Your task to perform on an android device: Go to sound settings Image 0: 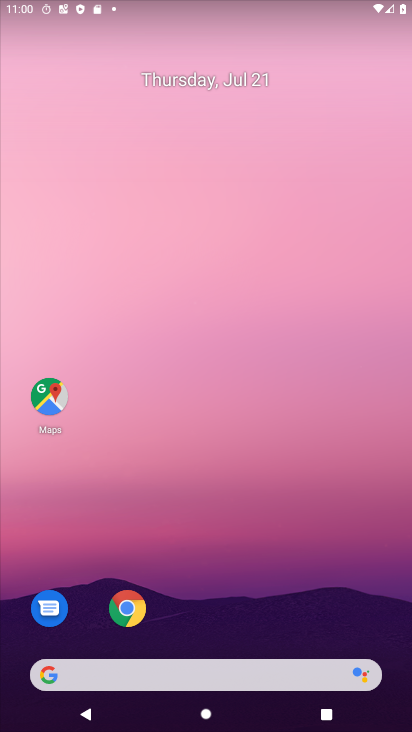
Step 0: drag from (184, 602) to (186, 102)
Your task to perform on an android device: Go to sound settings Image 1: 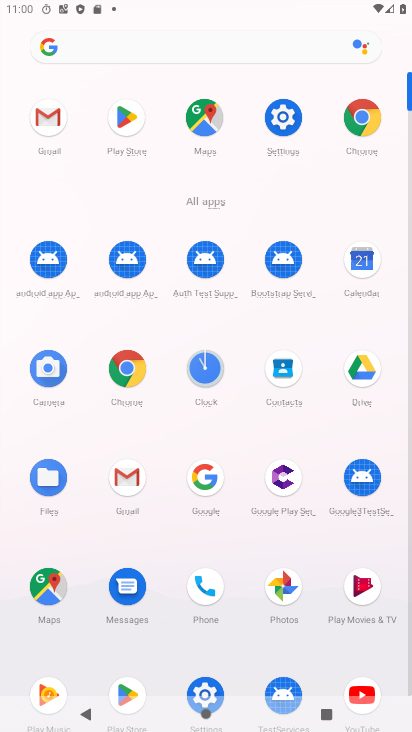
Step 1: click (284, 121)
Your task to perform on an android device: Go to sound settings Image 2: 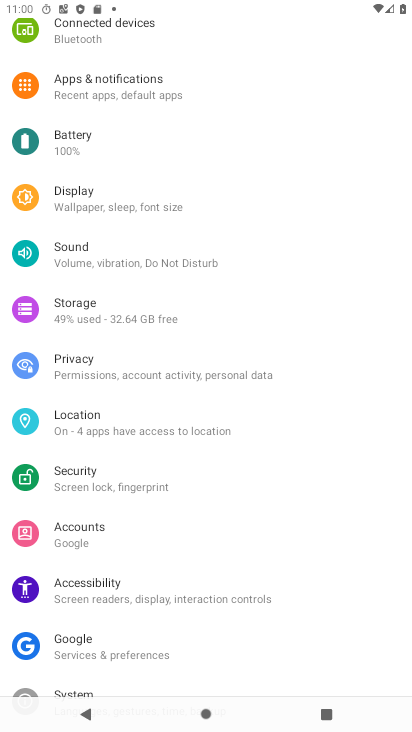
Step 2: click (92, 253)
Your task to perform on an android device: Go to sound settings Image 3: 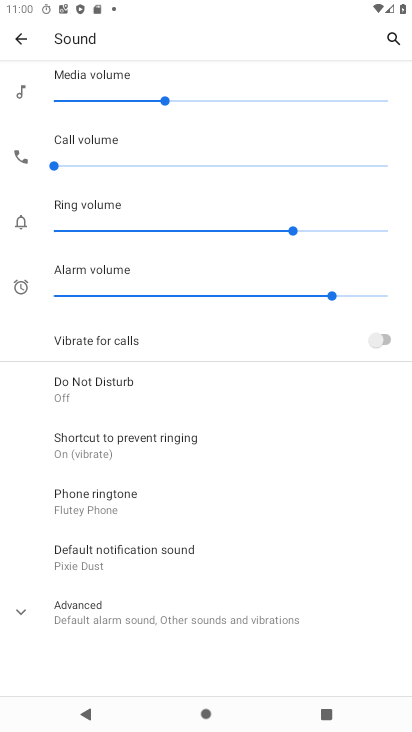
Step 3: task complete